Your task to perform on an android device: clear history in the chrome app Image 0: 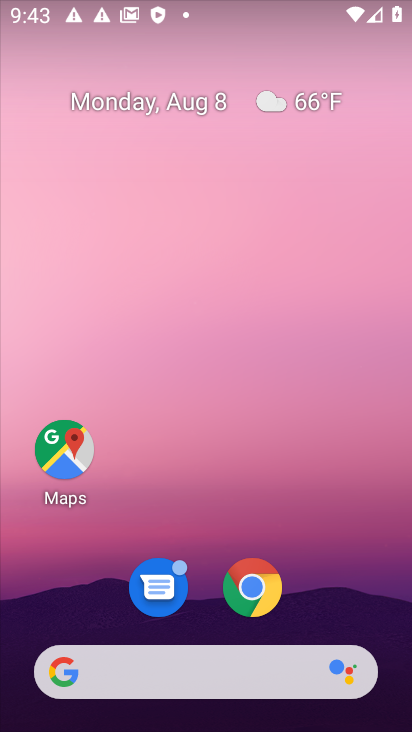
Step 0: click (265, 589)
Your task to perform on an android device: clear history in the chrome app Image 1: 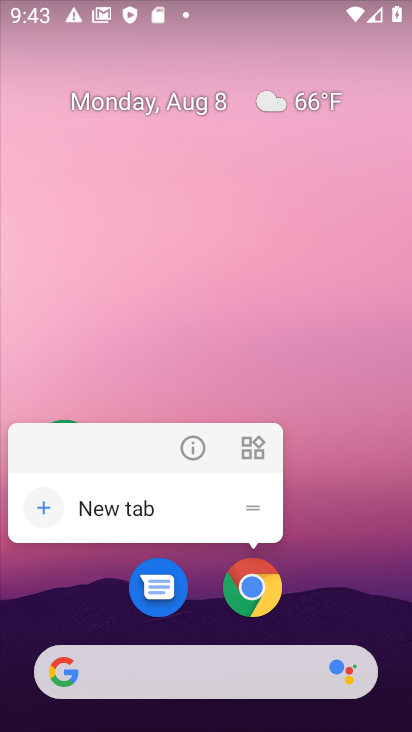
Step 1: click (265, 589)
Your task to perform on an android device: clear history in the chrome app Image 2: 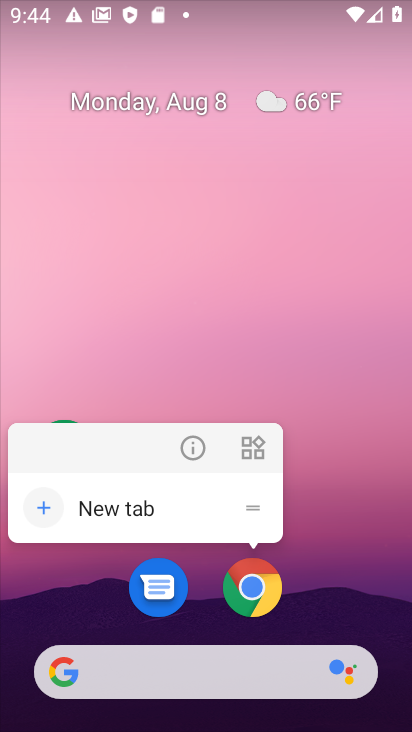
Step 2: click (265, 589)
Your task to perform on an android device: clear history in the chrome app Image 3: 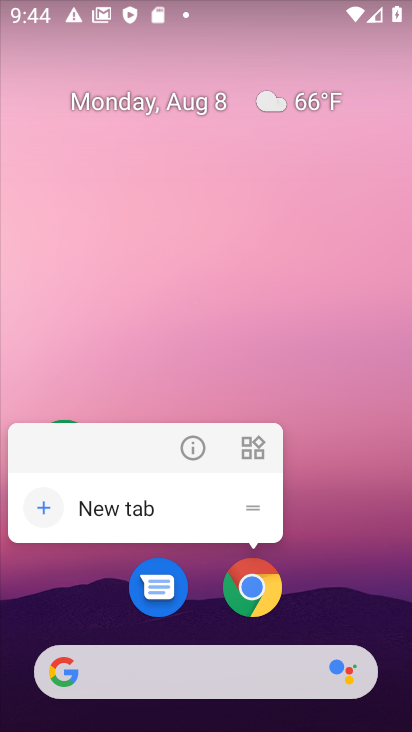
Step 3: click (265, 589)
Your task to perform on an android device: clear history in the chrome app Image 4: 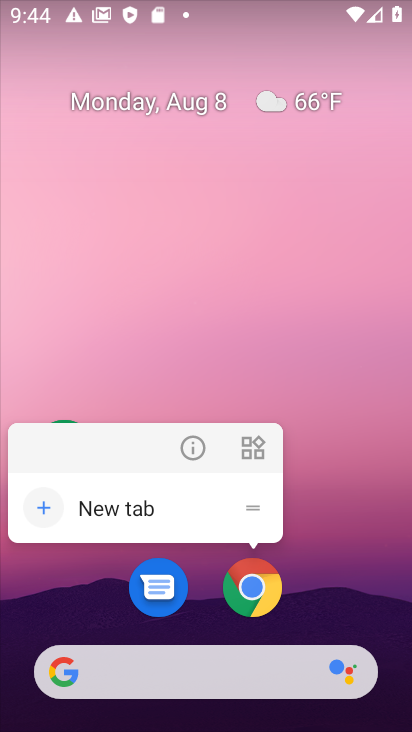
Step 4: click (265, 589)
Your task to perform on an android device: clear history in the chrome app Image 5: 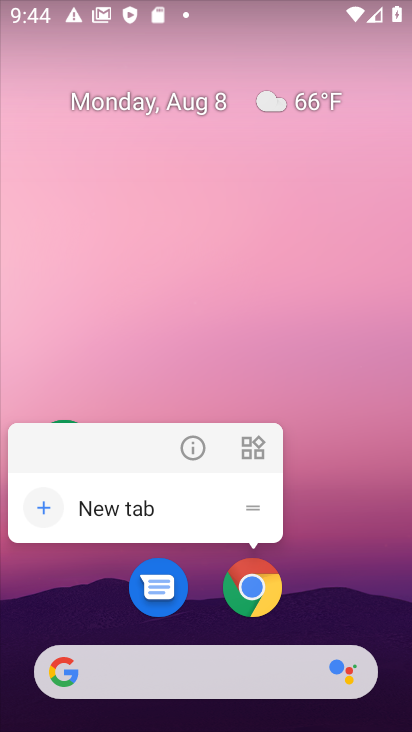
Step 5: click (265, 589)
Your task to perform on an android device: clear history in the chrome app Image 6: 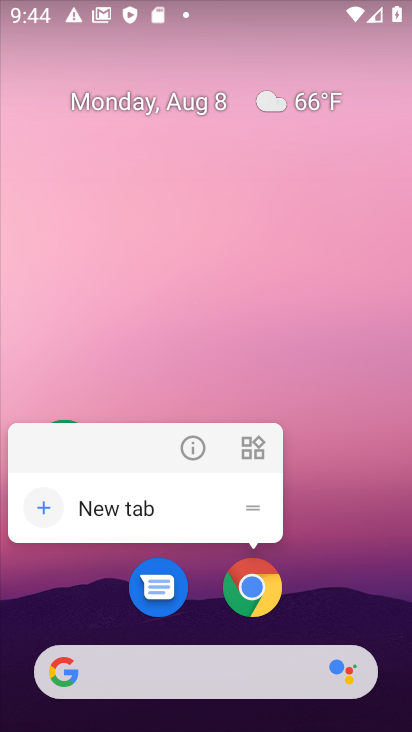
Step 6: click (265, 589)
Your task to perform on an android device: clear history in the chrome app Image 7: 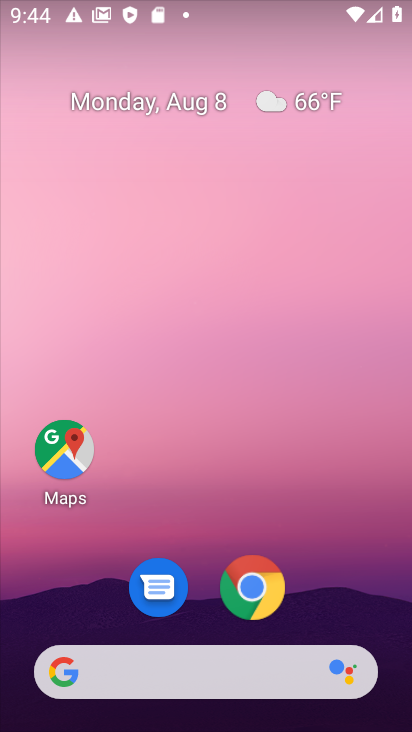
Step 7: click (265, 589)
Your task to perform on an android device: clear history in the chrome app Image 8: 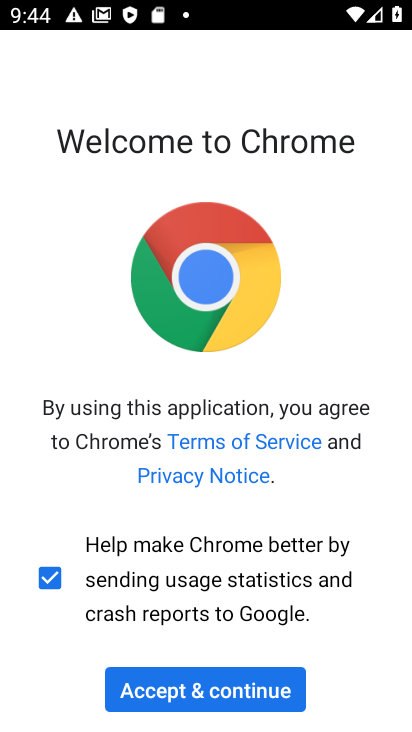
Step 8: click (261, 693)
Your task to perform on an android device: clear history in the chrome app Image 9: 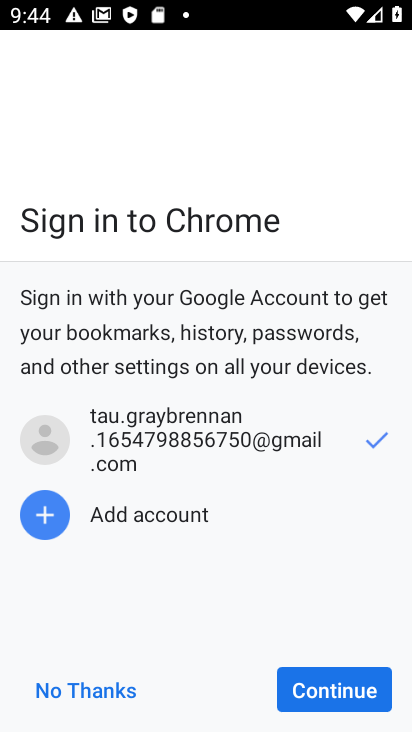
Step 9: click (318, 691)
Your task to perform on an android device: clear history in the chrome app Image 10: 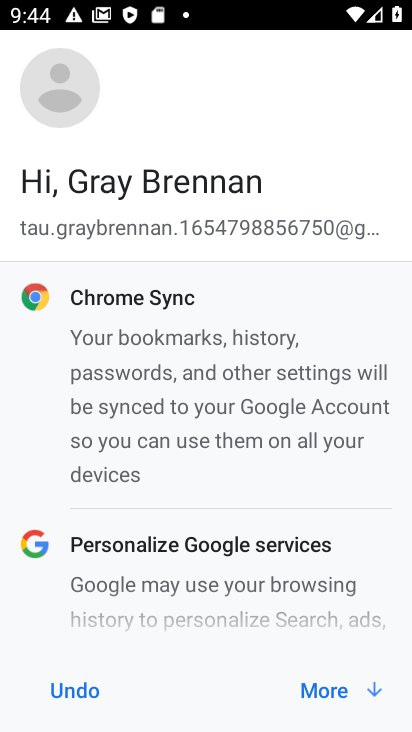
Step 10: click (318, 691)
Your task to perform on an android device: clear history in the chrome app Image 11: 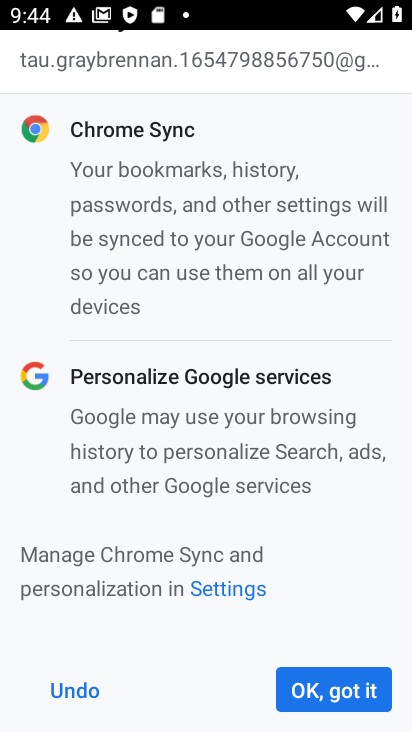
Step 11: click (318, 691)
Your task to perform on an android device: clear history in the chrome app Image 12: 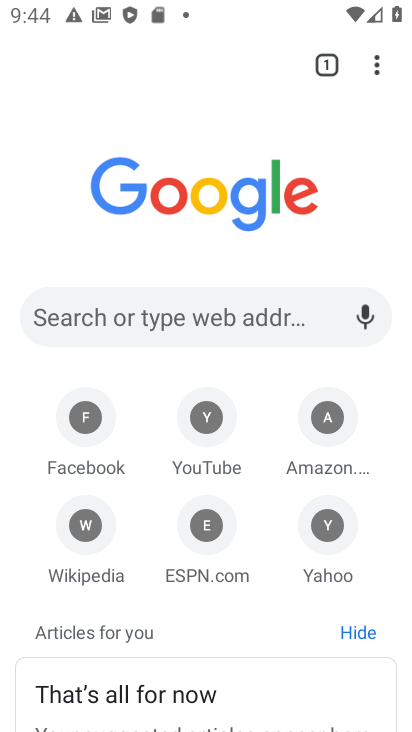
Step 12: click (381, 67)
Your task to perform on an android device: clear history in the chrome app Image 13: 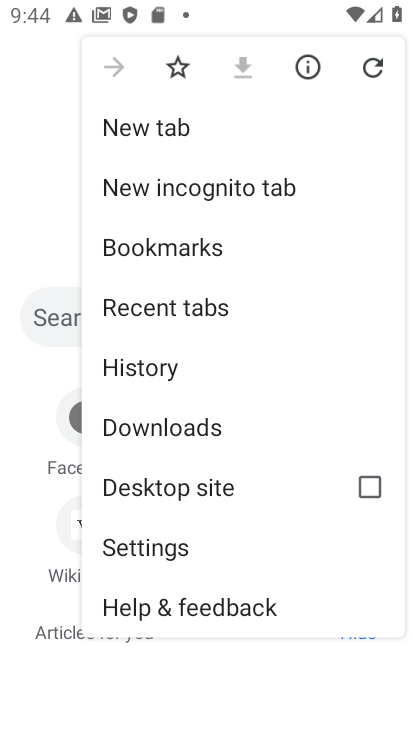
Step 13: click (150, 375)
Your task to perform on an android device: clear history in the chrome app Image 14: 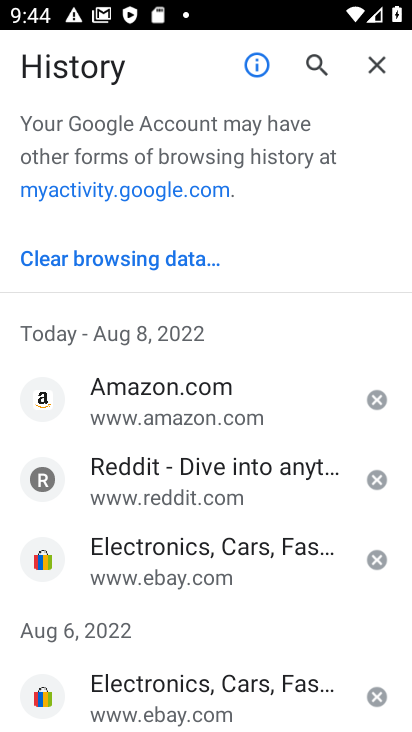
Step 14: click (167, 256)
Your task to perform on an android device: clear history in the chrome app Image 15: 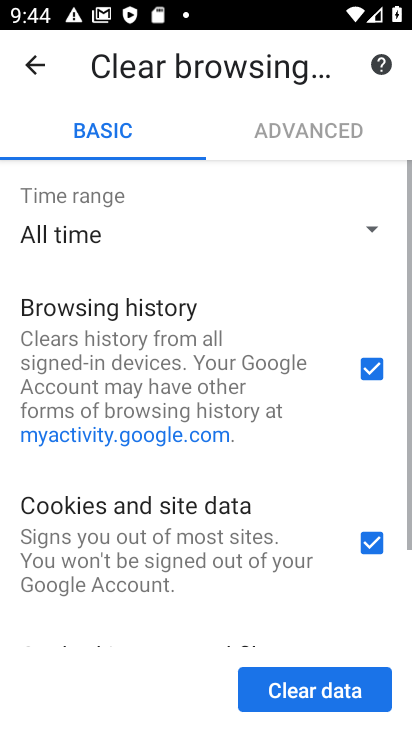
Step 15: click (352, 690)
Your task to perform on an android device: clear history in the chrome app Image 16: 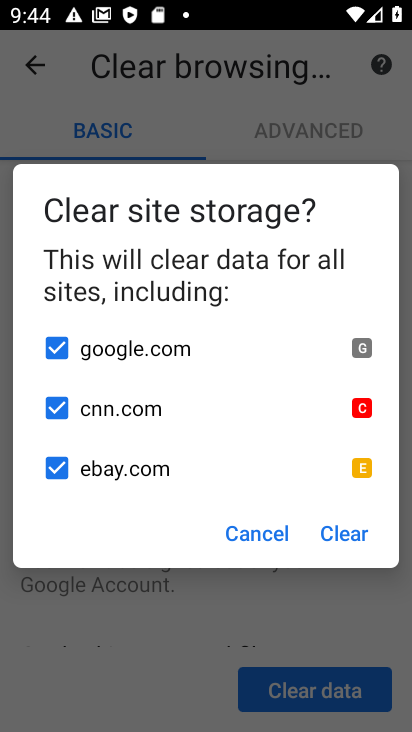
Step 16: click (359, 531)
Your task to perform on an android device: clear history in the chrome app Image 17: 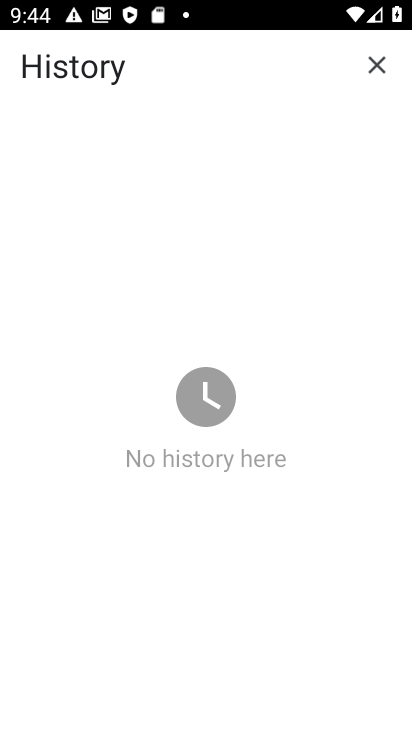
Step 17: task complete